Your task to perform on an android device: Go to eBay Image 0: 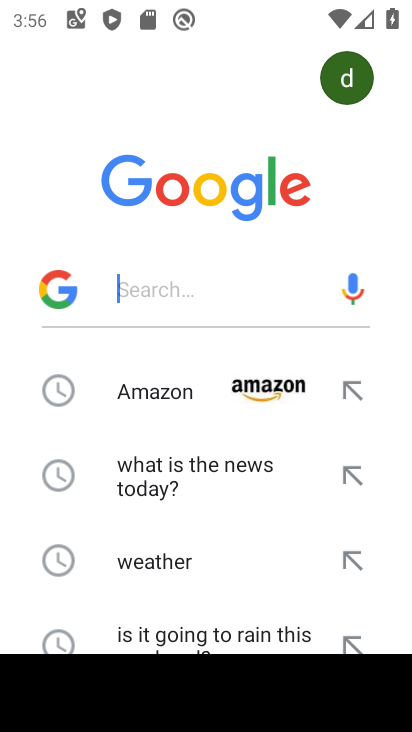
Step 0: press home button
Your task to perform on an android device: Go to eBay Image 1: 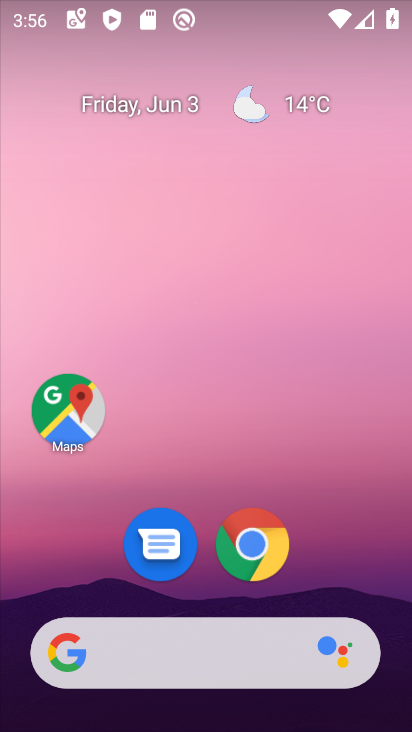
Step 1: click (254, 534)
Your task to perform on an android device: Go to eBay Image 2: 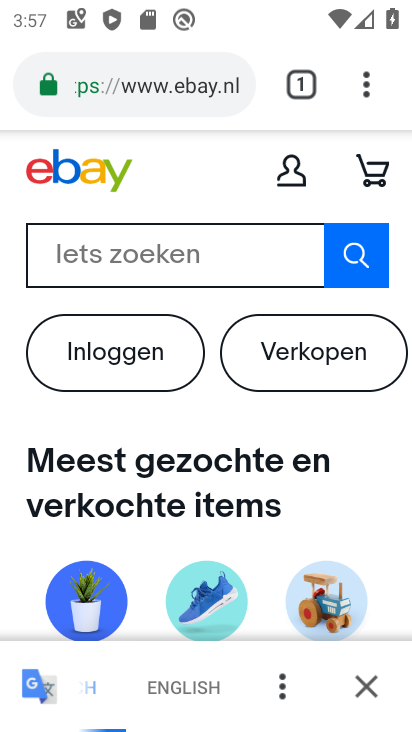
Step 2: task complete